Your task to perform on an android device: Search for seafood restaurants on Google Maps Image 0: 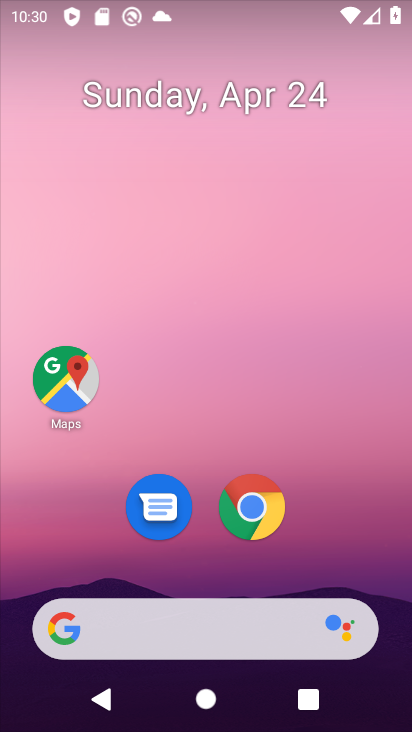
Step 0: click (79, 389)
Your task to perform on an android device: Search for seafood restaurants on Google Maps Image 1: 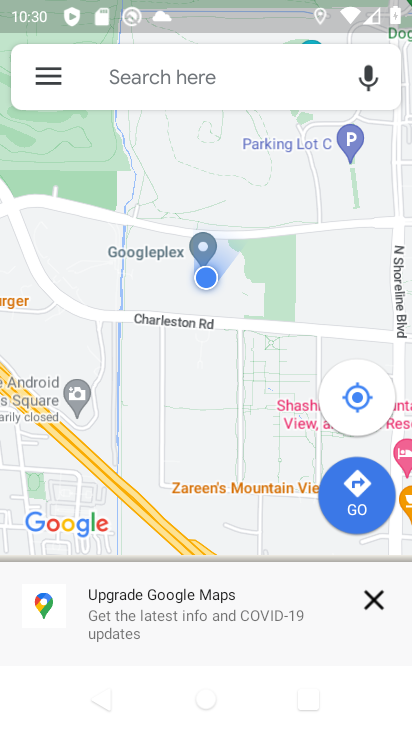
Step 1: click (138, 59)
Your task to perform on an android device: Search for seafood restaurants on Google Maps Image 2: 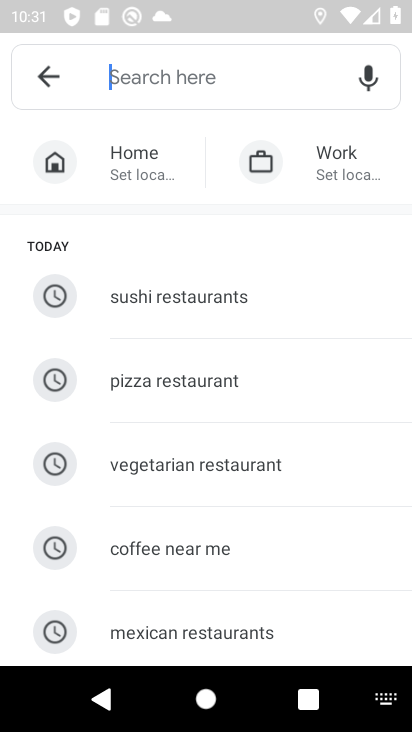
Step 2: type "seafood"
Your task to perform on an android device: Search for seafood restaurants on Google Maps Image 3: 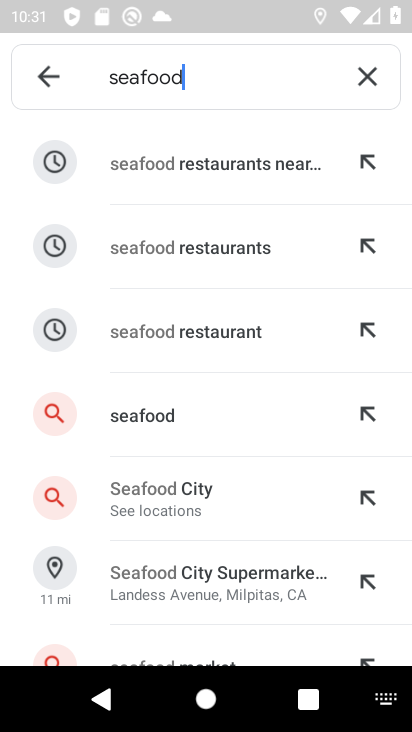
Step 3: click (169, 222)
Your task to perform on an android device: Search for seafood restaurants on Google Maps Image 4: 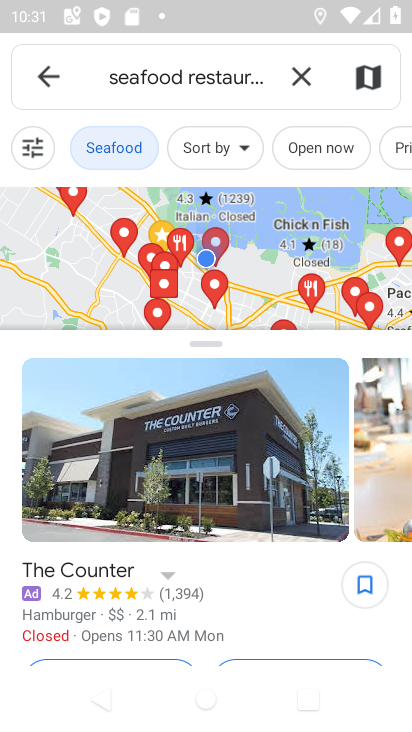
Step 4: task complete